Your task to perform on an android device: turn on javascript in the chrome app Image 0: 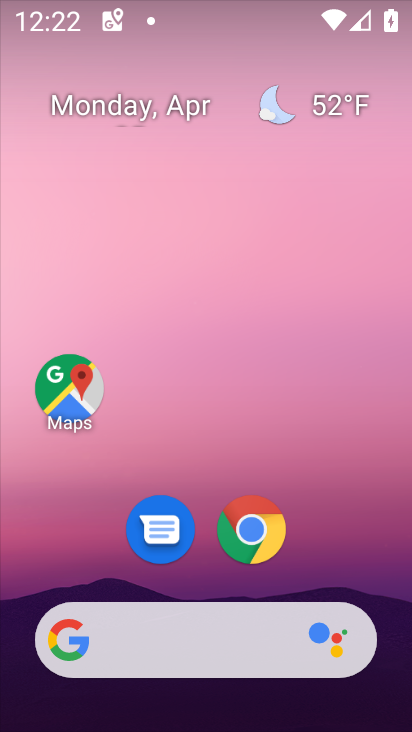
Step 0: click (380, 561)
Your task to perform on an android device: turn on javascript in the chrome app Image 1: 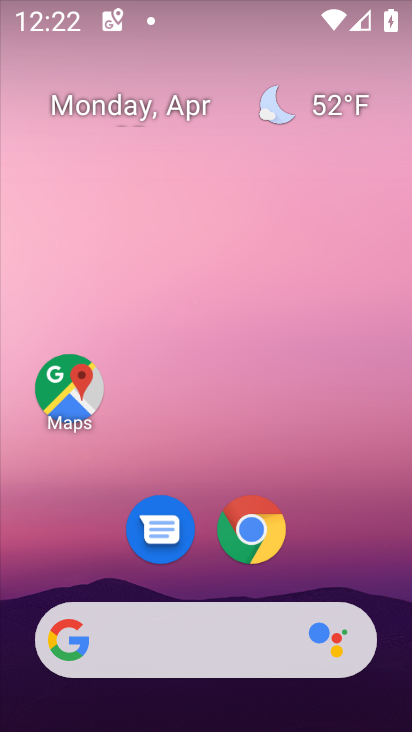
Step 1: click (252, 528)
Your task to perform on an android device: turn on javascript in the chrome app Image 2: 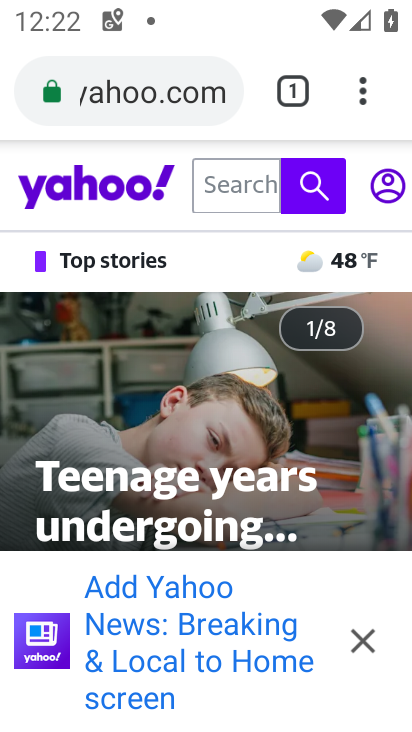
Step 2: click (357, 87)
Your task to perform on an android device: turn on javascript in the chrome app Image 3: 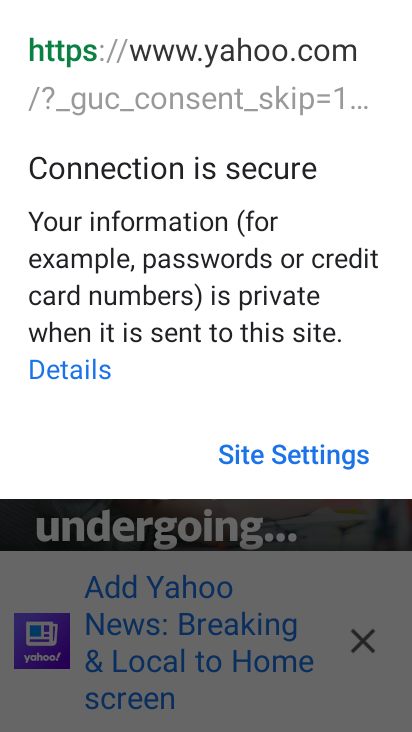
Step 3: press back button
Your task to perform on an android device: turn on javascript in the chrome app Image 4: 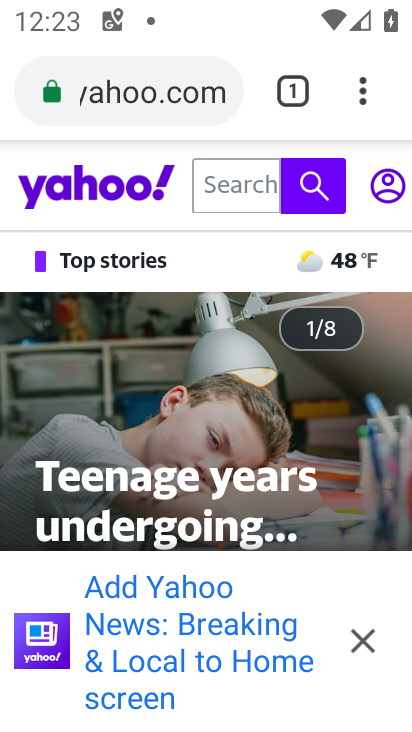
Step 4: click (360, 85)
Your task to perform on an android device: turn on javascript in the chrome app Image 5: 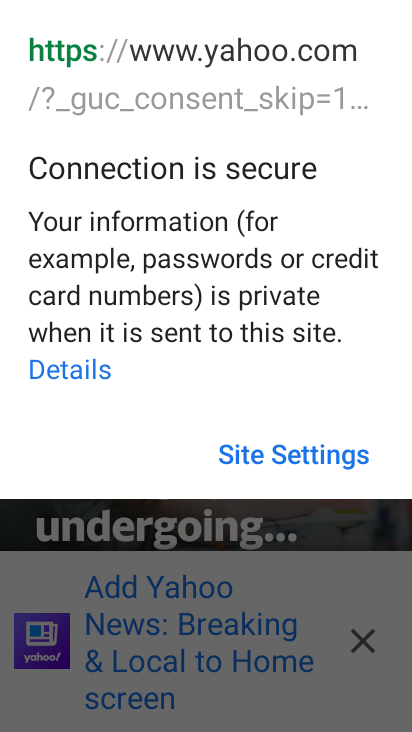
Step 5: click (310, 451)
Your task to perform on an android device: turn on javascript in the chrome app Image 6: 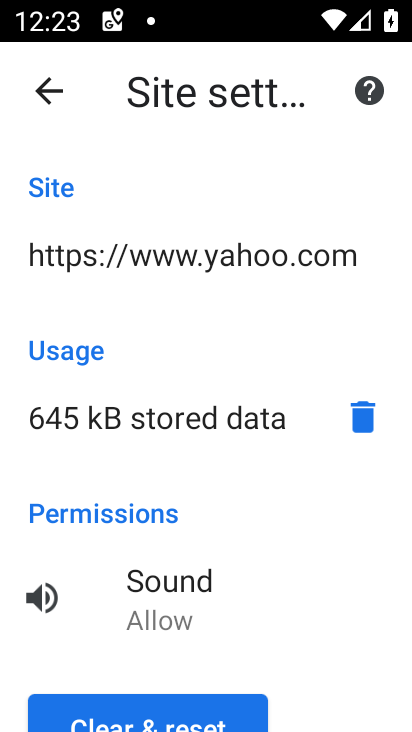
Step 6: task complete